Your task to perform on an android device: allow notifications from all sites in the chrome app Image 0: 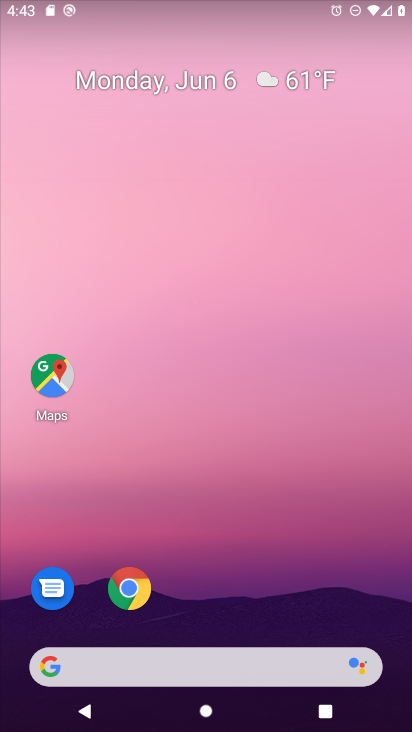
Step 0: click (411, 540)
Your task to perform on an android device: allow notifications from all sites in the chrome app Image 1: 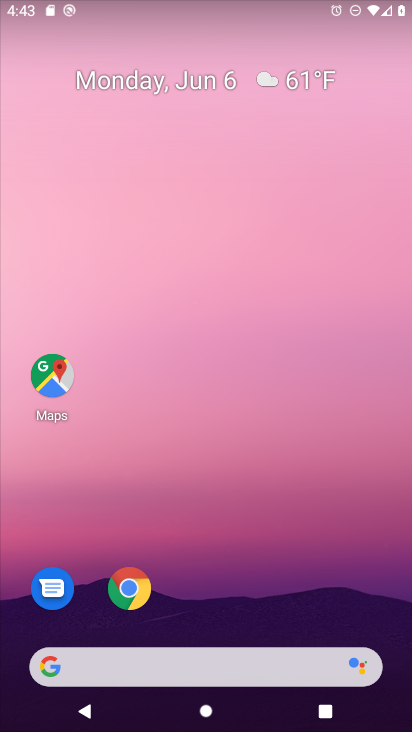
Step 1: drag from (192, 364) to (180, 310)
Your task to perform on an android device: allow notifications from all sites in the chrome app Image 2: 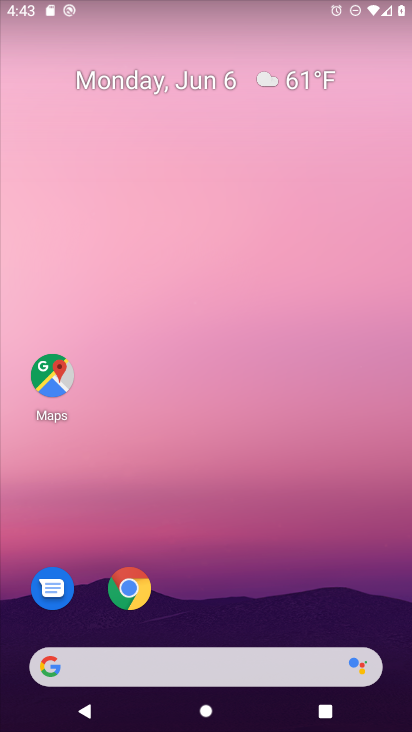
Step 2: drag from (230, 557) to (143, 206)
Your task to perform on an android device: allow notifications from all sites in the chrome app Image 3: 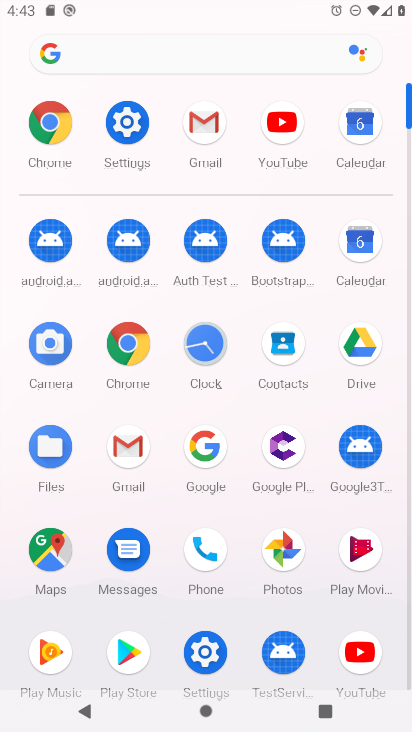
Step 3: click (49, 135)
Your task to perform on an android device: allow notifications from all sites in the chrome app Image 4: 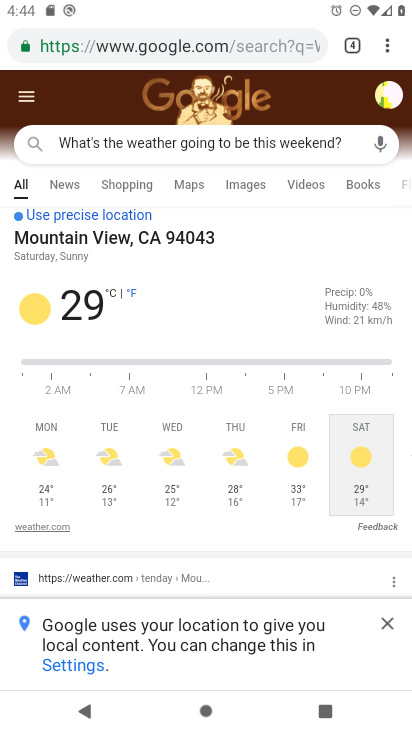
Step 4: click (390, 53)
Your task to perform on an android device: allow notifications from all sites in the chrome app Image 5: 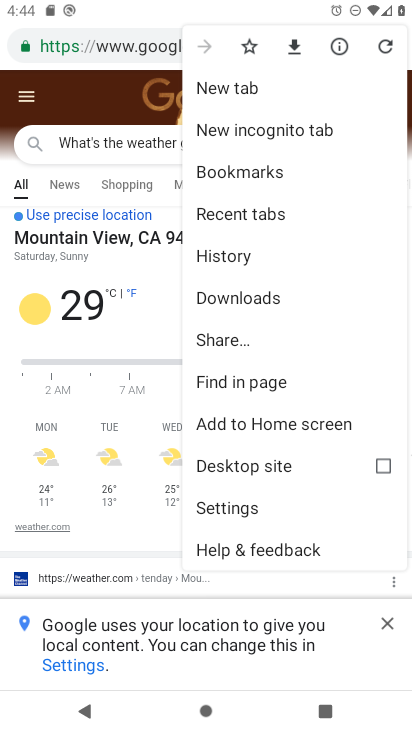
Step 5: click (244, 514)
Your task to perform on an android device: allow notifications from all sites in the chrome app Image 6: 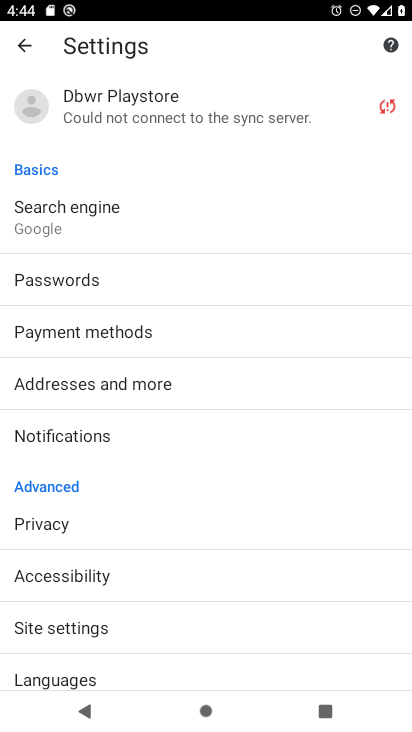
Step 6: click (144, 641)
Your task to perform on an android device: allow notifications from all sites in the chrome app Image 7: 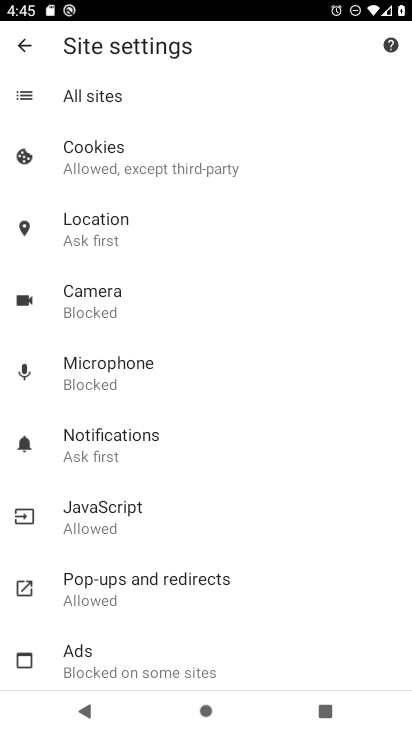
Step 7: click (188, 465)
Your task to perform on an android device: allow notifications from all sites in the chrome app Image 8: 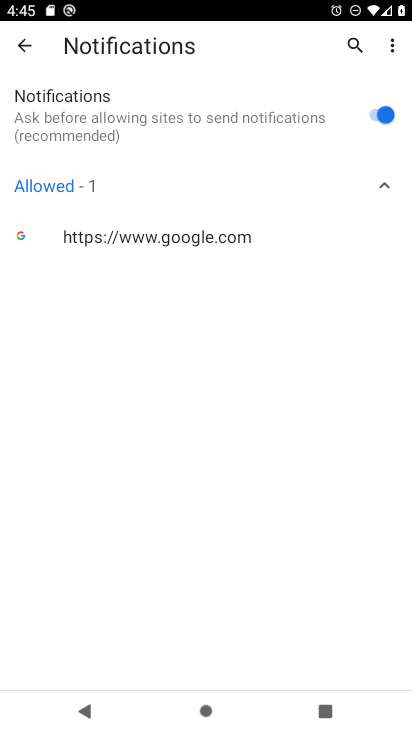
Step 8: task complete